Your task to perform on an android device: Open my contact list Image 0: 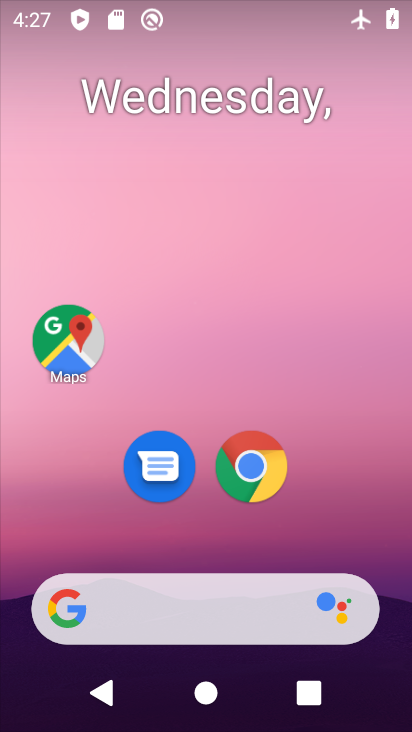
Step 0: drag from (344, 527) to (330, 15)
Your task to perform on an android device: Open my contact list Image 1: 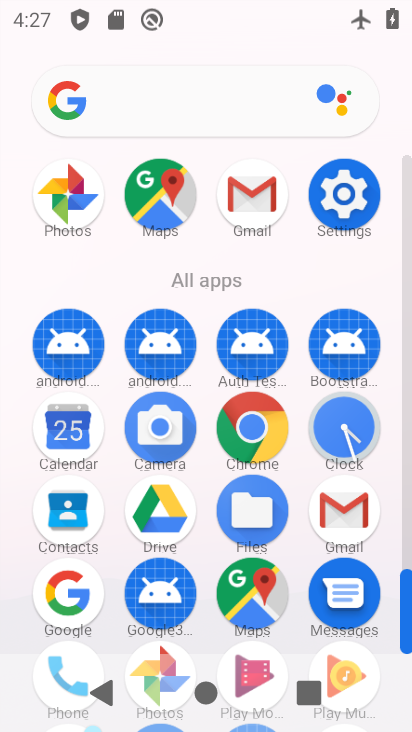
Step 1: click (67, 513)
Your task to perform on an android device: Open my contact list Image 2: 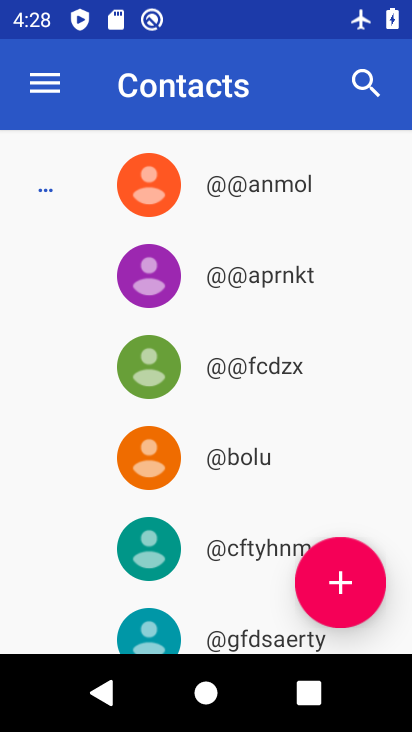
Step 2: task complete